Your task to perform on an android device: Clear the cart on costco. Add "panasonic triple a" to the cart on costco Image 0: 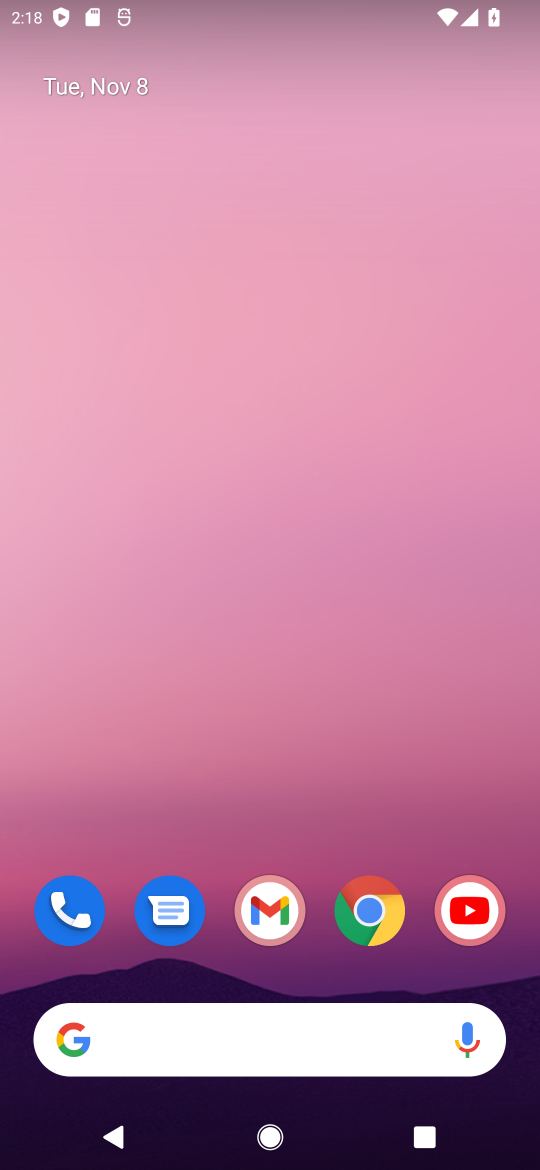
Step 0: drag from (324, 976) to (518, 79)
Your task to perform on an android device: Clear the cart on costco. Add "panasonic triple a" to the cart on costco Image 1: 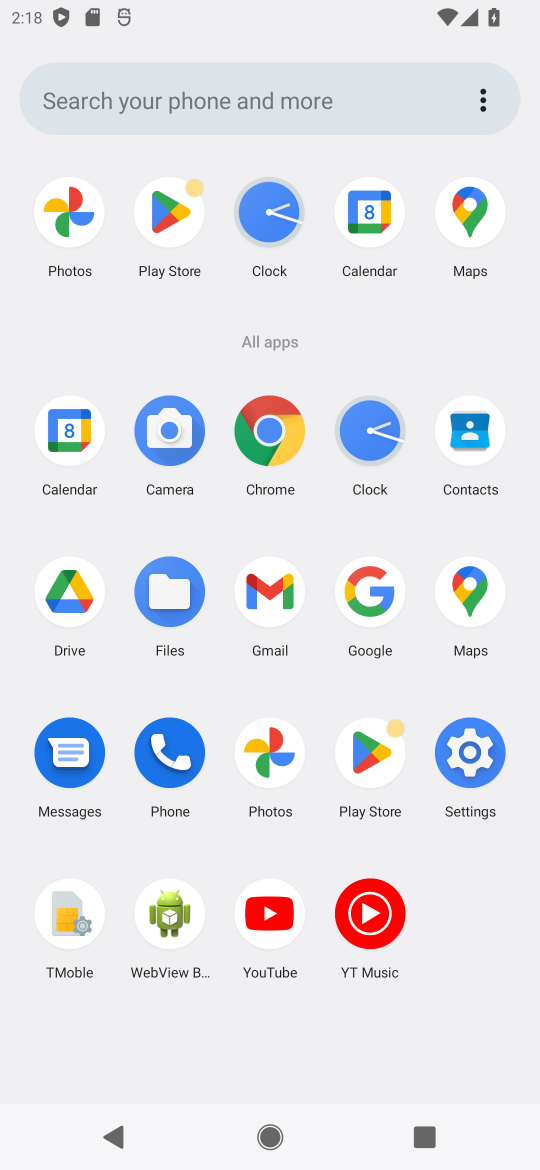
Step 1: click (273, 426)
Your task to perform on an android device: Clear the cart on costco. Add "panasonic triple a" to the cart on costco Image 2: 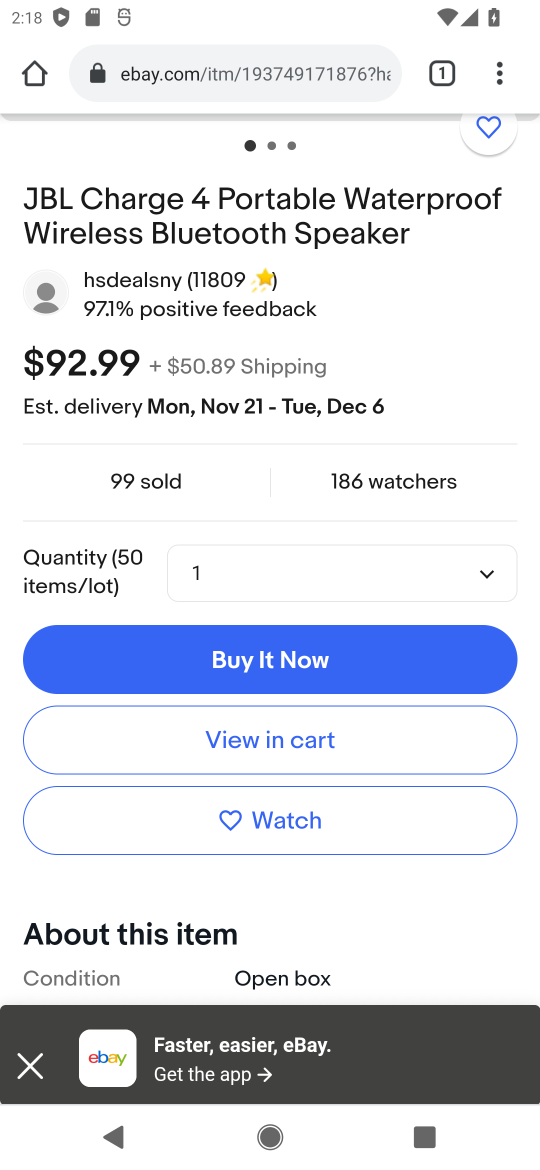
Step 2: click (314, 69)
Your task to perform on an android device: Clear the cart on costco. Add "panasonic triple a" to the cart on costco Image 3: 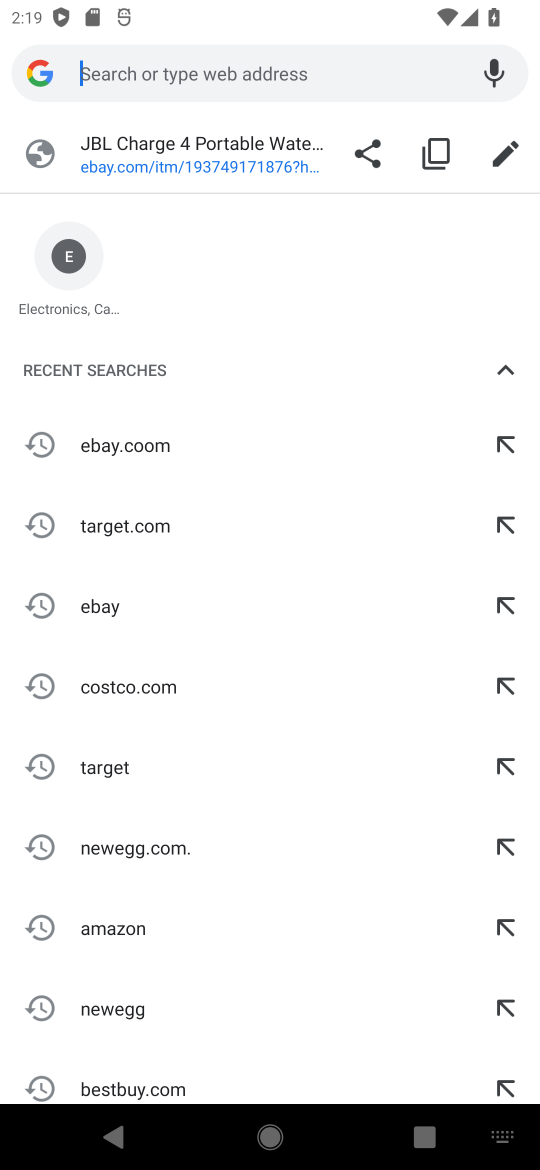
Step 3: type "costco.com"
Your task to perform on an android device: Clear the cart on costco. Add "panasonic triple a" to the cart on costco Image 4: 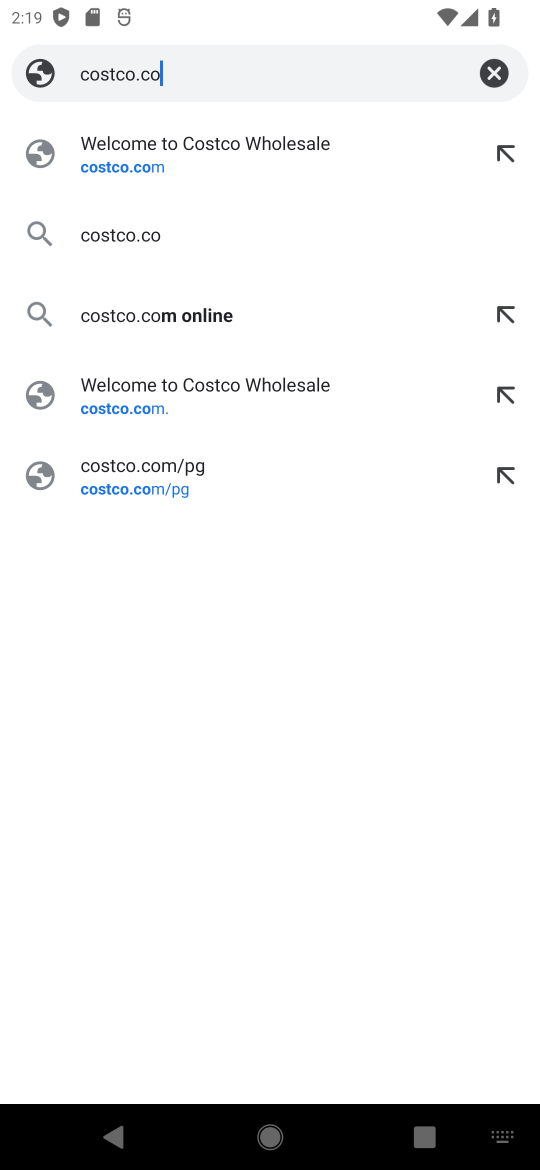
Step 4: press enter
Your task to perform on an android device: Clear the cart on costco. Add "panasonic triple a" to the cart on costco Image 5: 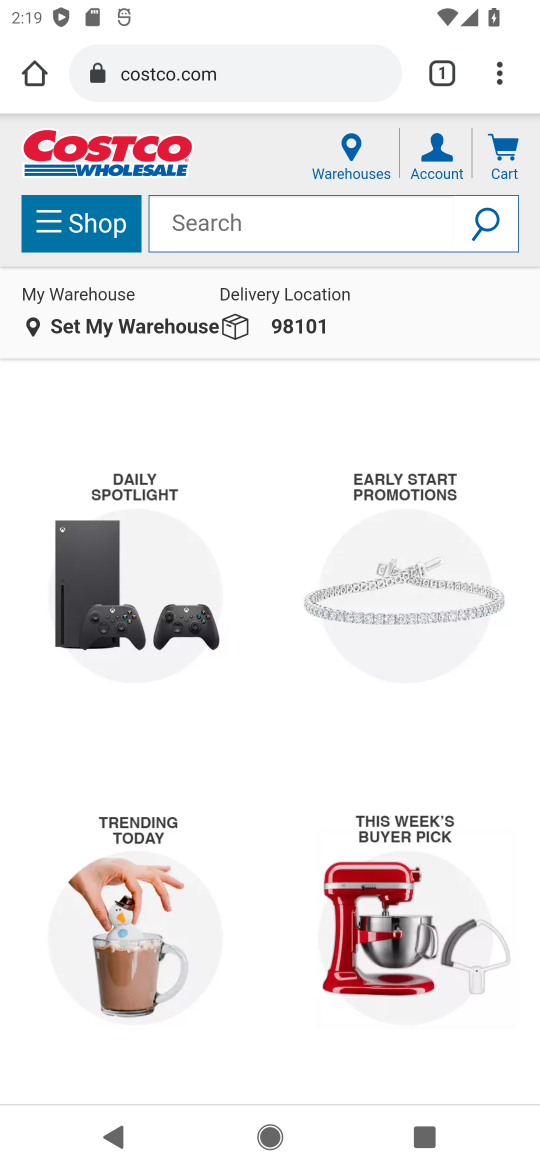
Step 5: click (517, 142)
Your task to perform on an android device: Clear the cart on costco. Add "panasonic triple a" to the cart on costco Image 6: 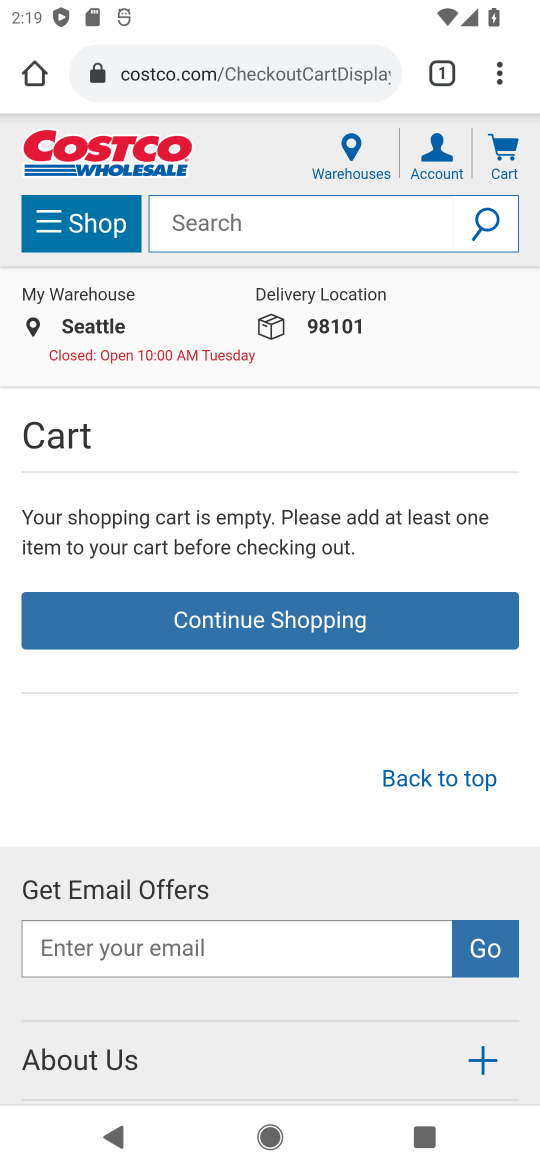
Step 6: click (348, 228)
Your task to perform on an android device: Clear the cart on costco. Add "panasonic triple a" to the cart on costco Image 7: 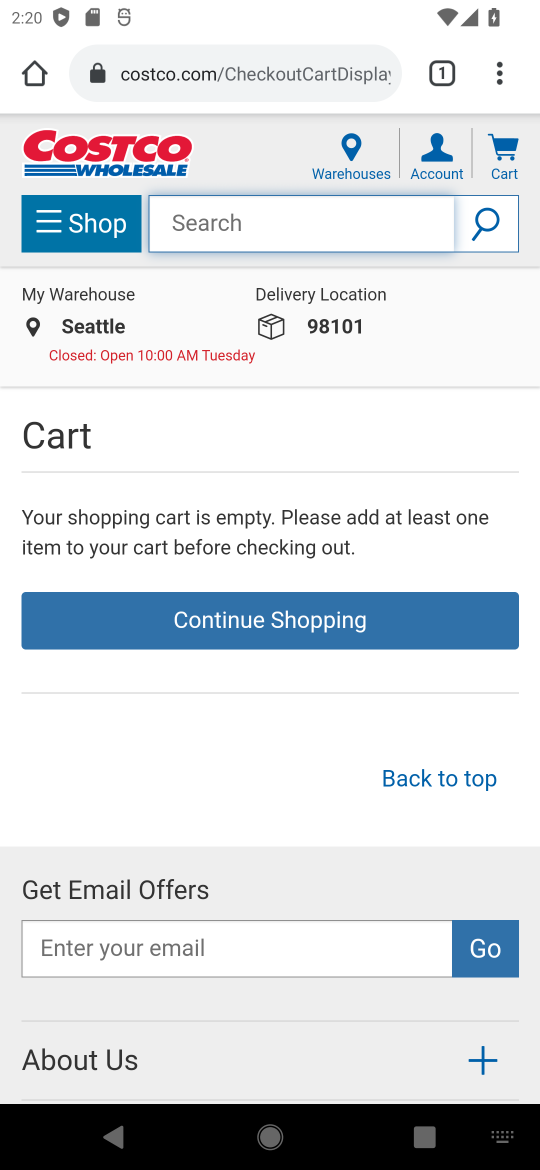
Step 7: type "panasonic triple a"
Your task to perform on an android device: Clear the cart on costco. Add "panasonic triple a" to the cart on costco Image 8: 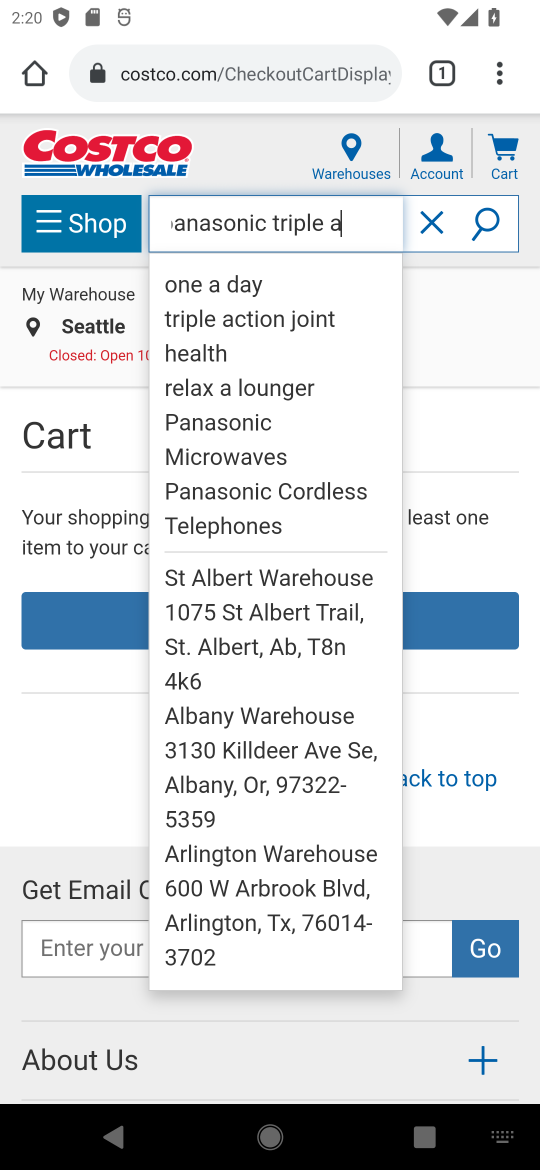
Step 8: press enter
Your task to perform on an android device: Clear the cart on costco. Add "panasonic triple a" to the cart on costco Image 9: 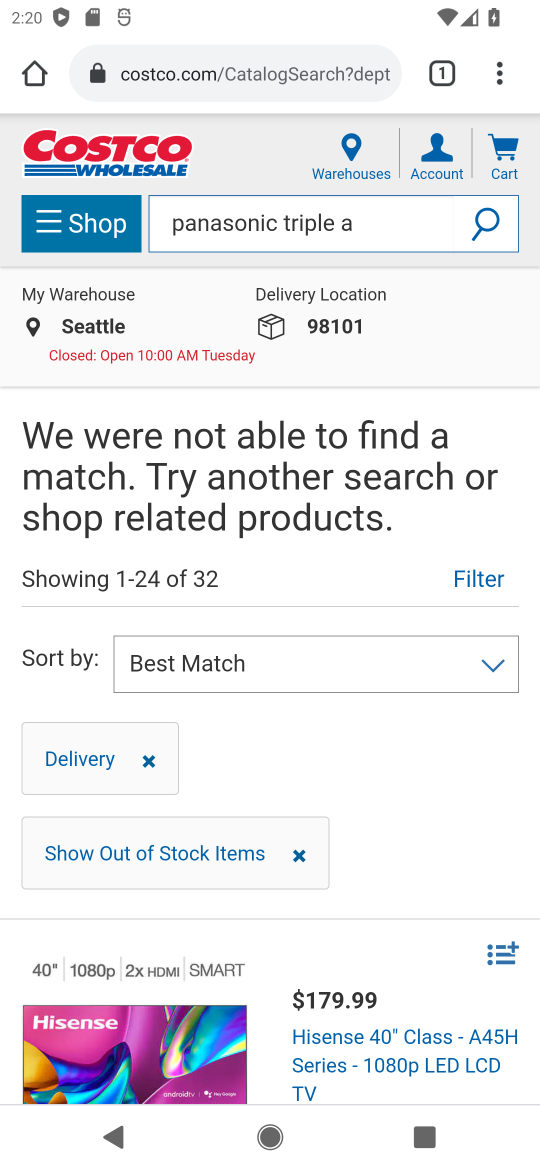
Step 9: task complete